Your task to perform on an android device: Open the stopwatch Image 0: 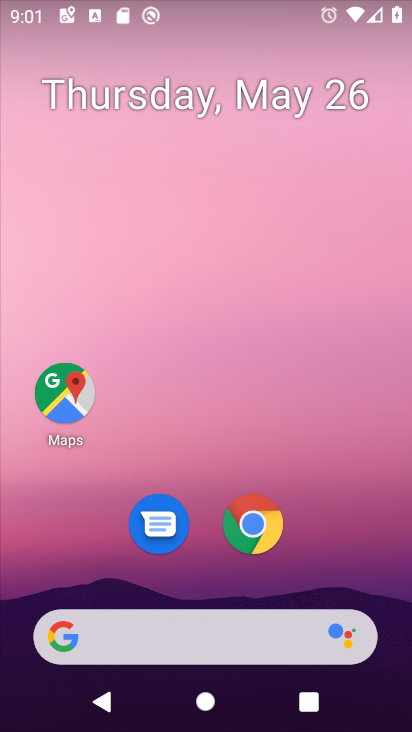
Step 0: drag from (246, 430) to (275, 16)
Your task to perform on an android device: Open the stopwatch Image 1: 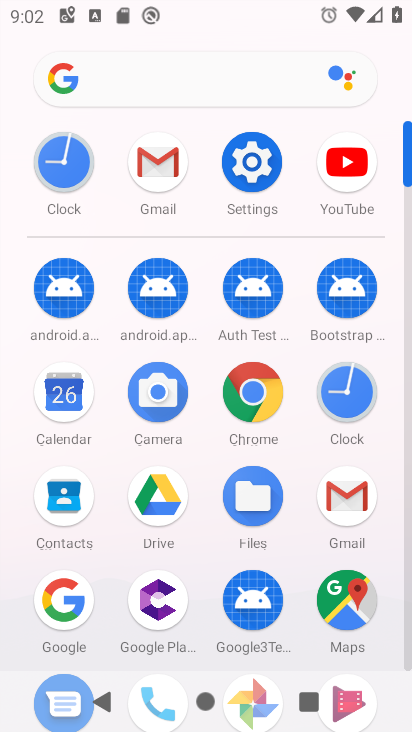
Step 1: click (65, 150)
Your task to perform on an android device: Open the stopwatch Image 2: 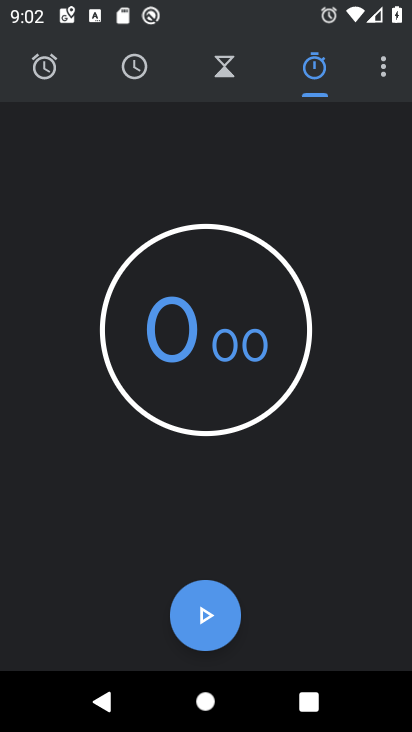
Step 2: click (312, 69)
Your task to perform on an android device: Open the stopwatch Image 3: 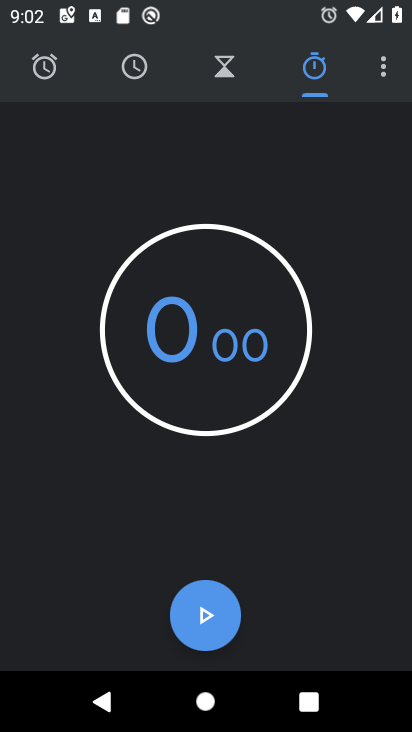
Step 3: task complete